Your task to perform on an android device: Go to internet settings Image 0: 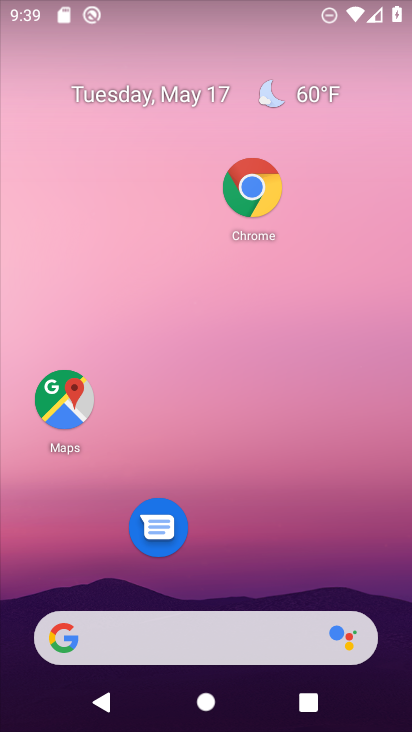
Step 0: drag from (289, 539) to (303, 28)
Your task to perform on an android device: Go to internet settings Image 1: 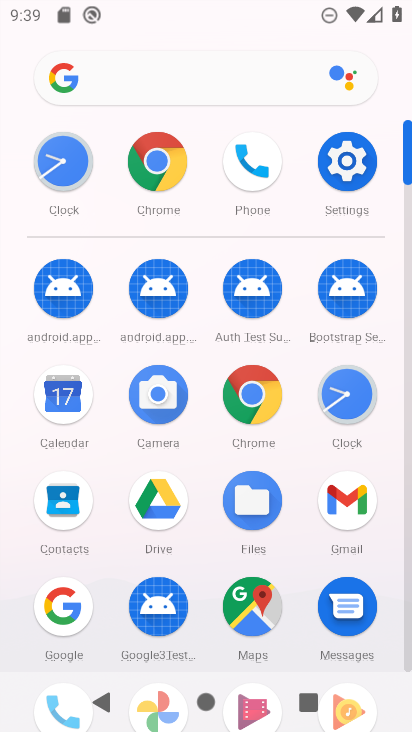
Step 1: click (334, 143)
Your task to perform on an android device: Go to internet settings Image 2: 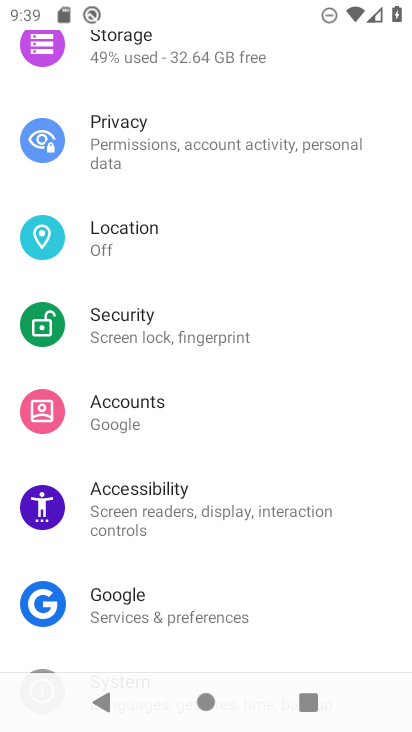
Step 2: drag from (286, 211) to (247, 595)
Your task to perform on an android device: Go to internet settings Image 3: 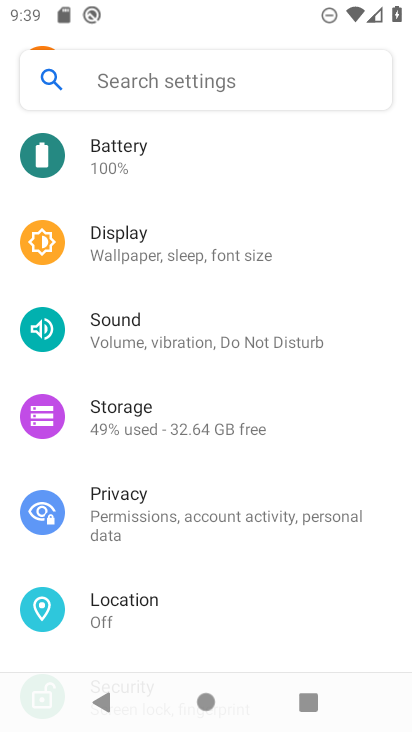
Step 3: drag from (179, 166) to (179, 590)
Your task to perform on an android device: Go to internet settings Image 4: 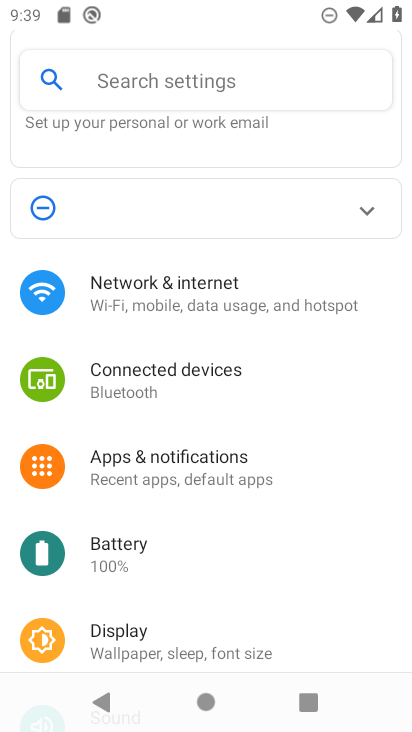
Step 4: click (189, 300)
Your task to perform on an android device: Go to internet settings Image 5: 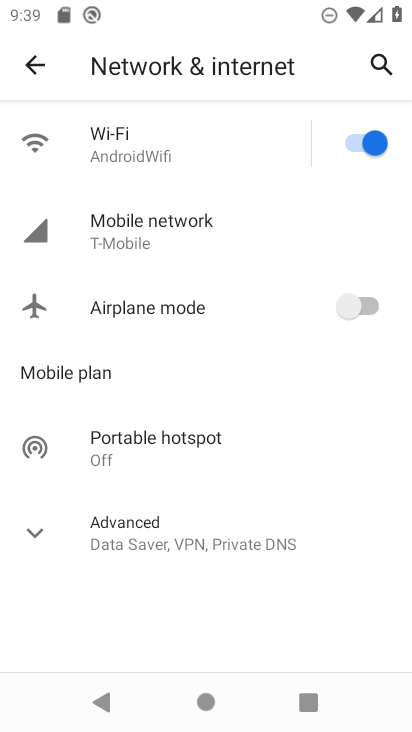
Step 5: task complete